Your task to perform on an android device: Open Google Chrome and click the shortcut for Amazon.com Image 0: 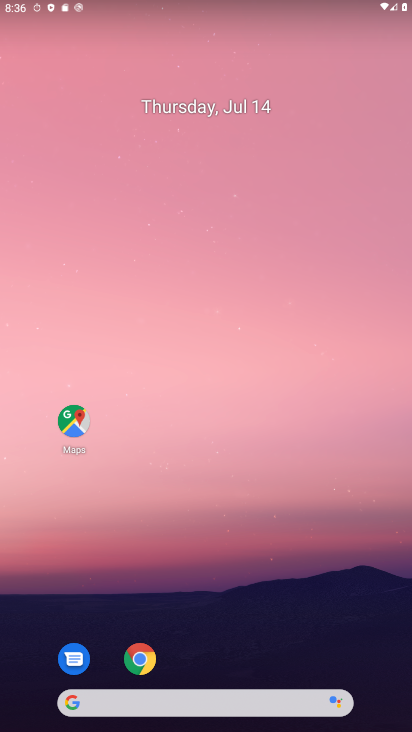
Step 0: click (147, 657)
Your task to perform on an android device: Open Google Chrome and click the shortcut for Amazon.com Image 1: 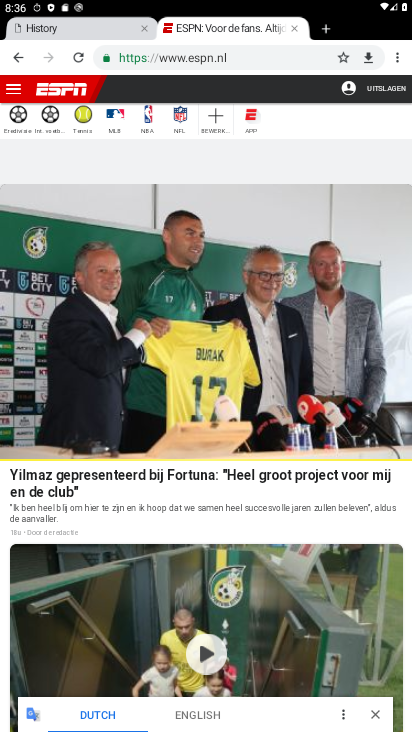
Step 1: click (319, 31)
Your task to perform on an android device: Open Google Chrome and click the shortcut for Amazon.com Image 2: 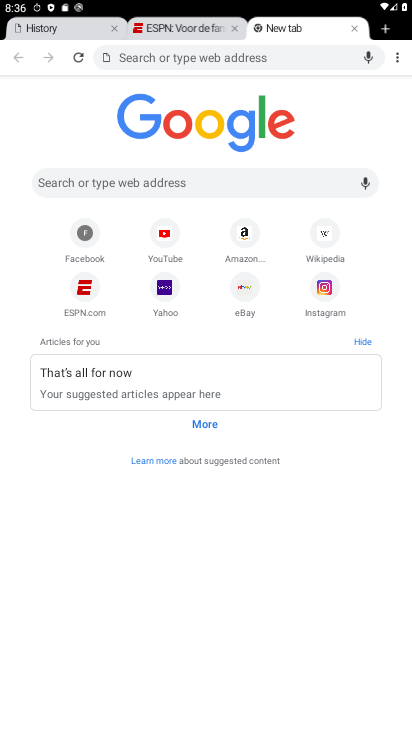
Step 2: click (243, 228)
Your task to perform on an android device: Open Google Chrome and click the shortcut for Amazon.com Image 3: 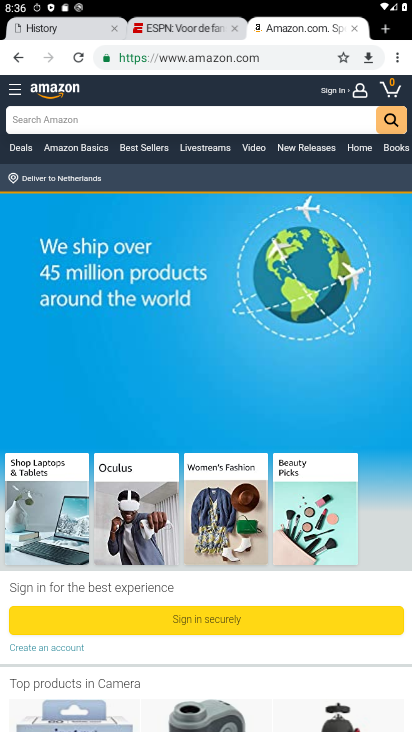
Step 3: task complete